Your task to perform on an android device: Open the stopwatch Image 0: 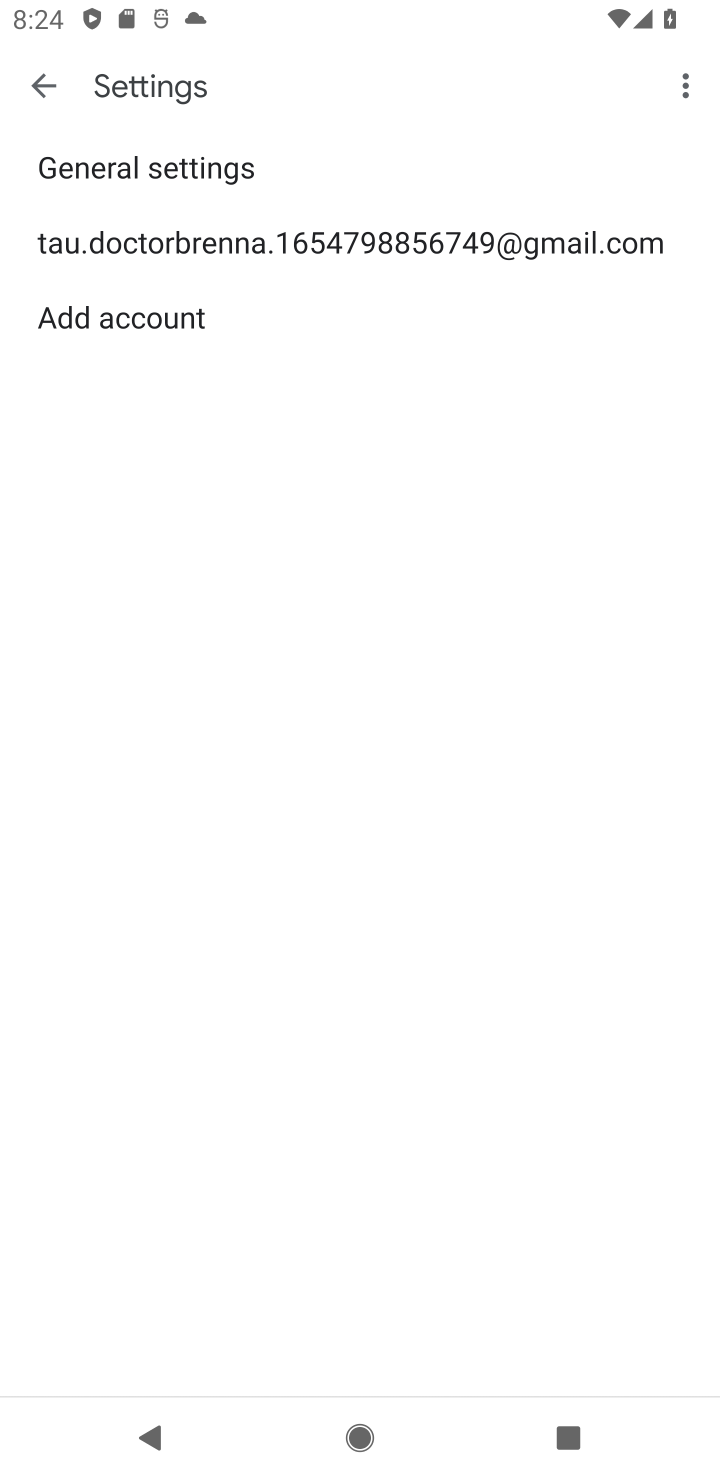
Step 0: press home button
Your task to perform on an android device: Open the stopwatch Image 1: 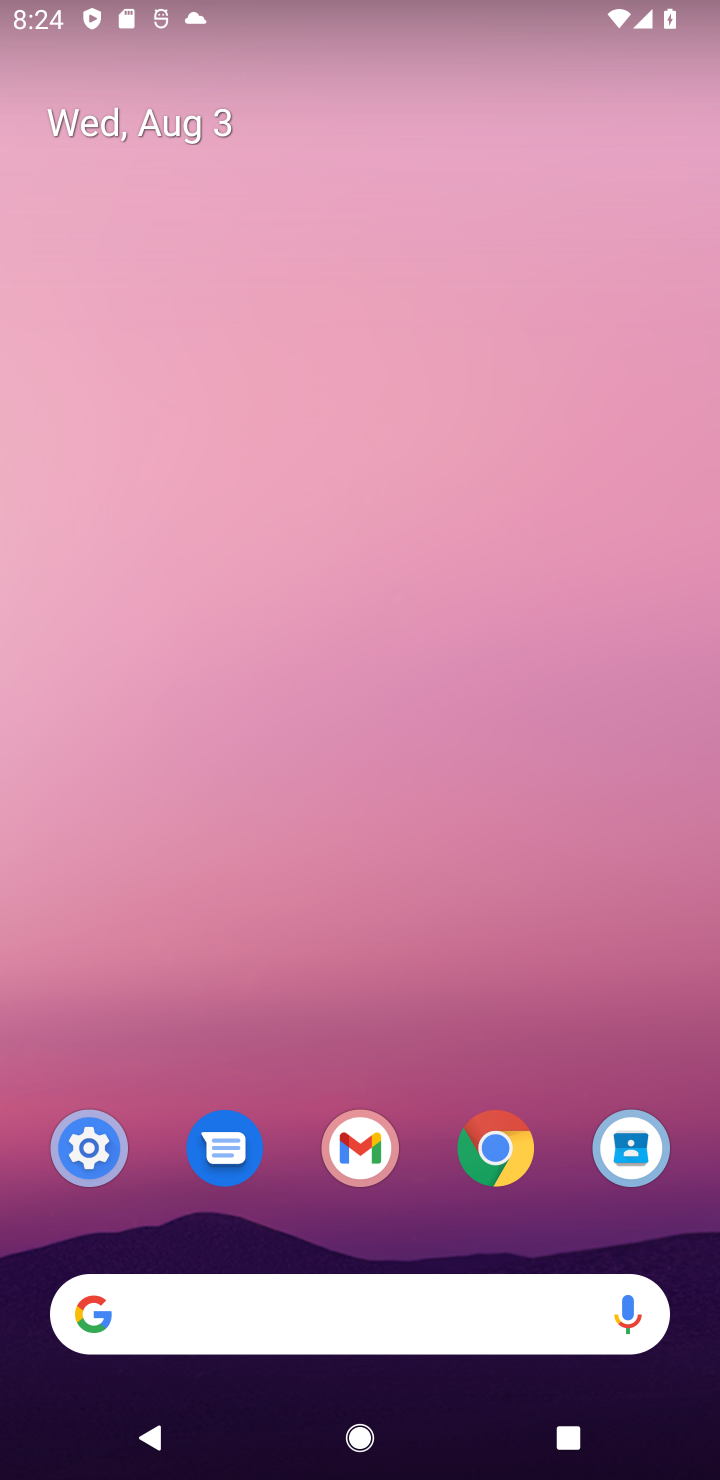
Step 1: drag from (499, 1057) to (402, 137)
Your task to perform on an android device: Open the stopwatch Image 2: 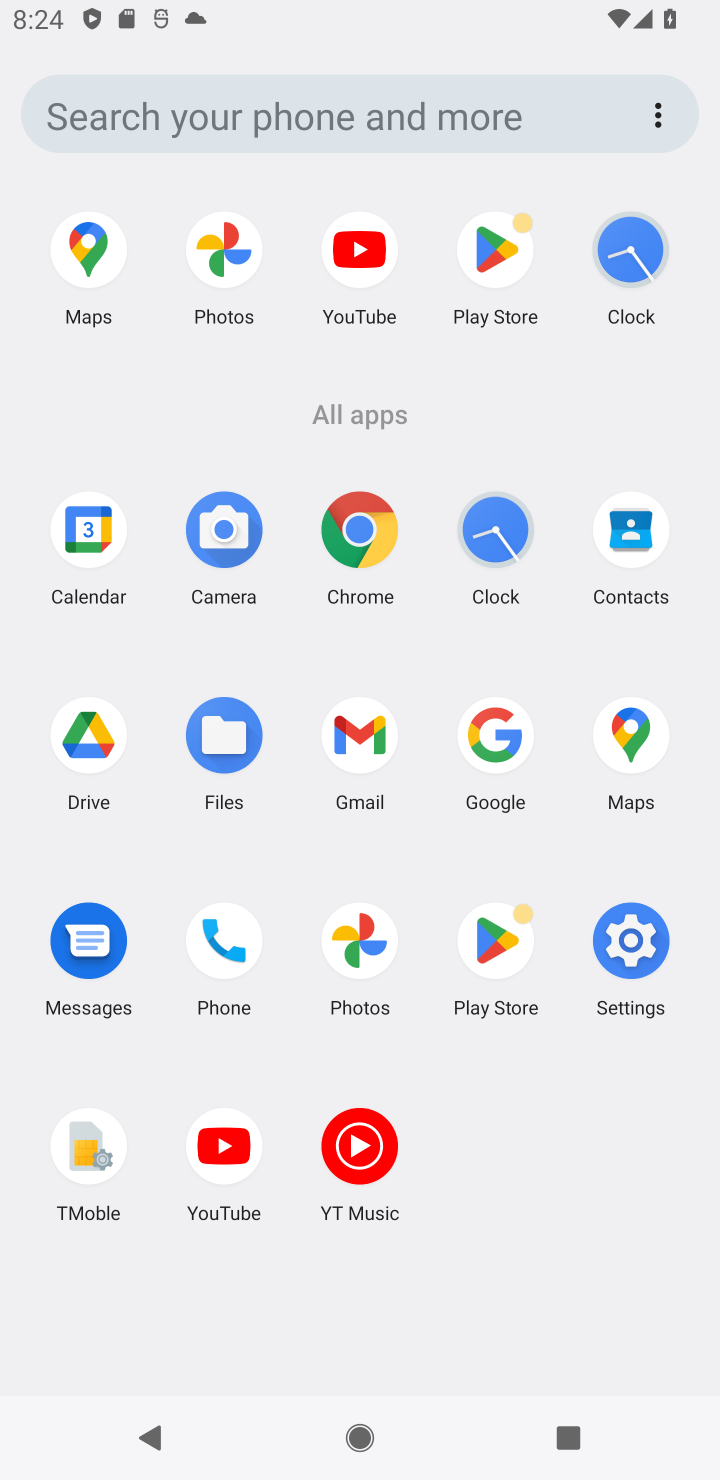
Step 2: click (603, 241)
Your task to perform on an android device: Open the stopwatch Image 3: 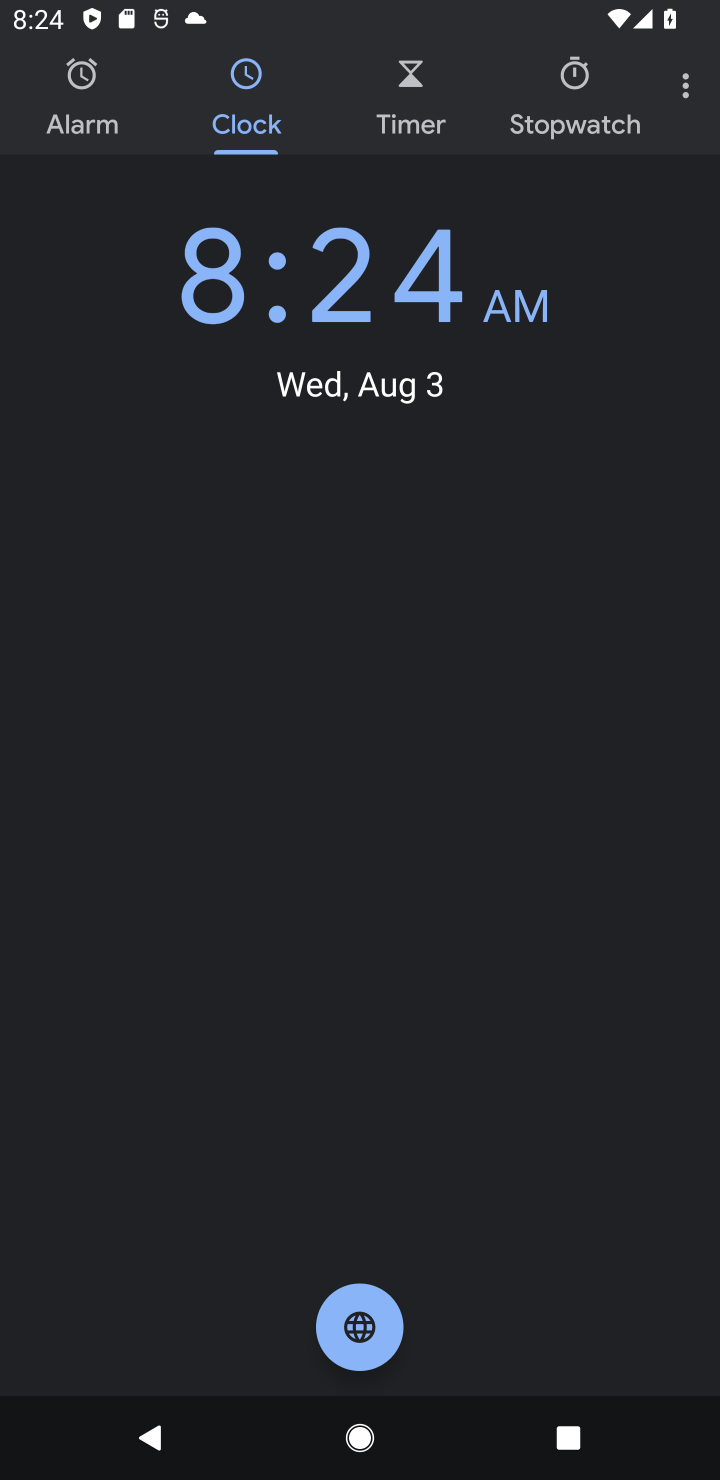
Step 3: click (561, 84)
Your task to perform on an android device: Open the stopwatch Image 4: 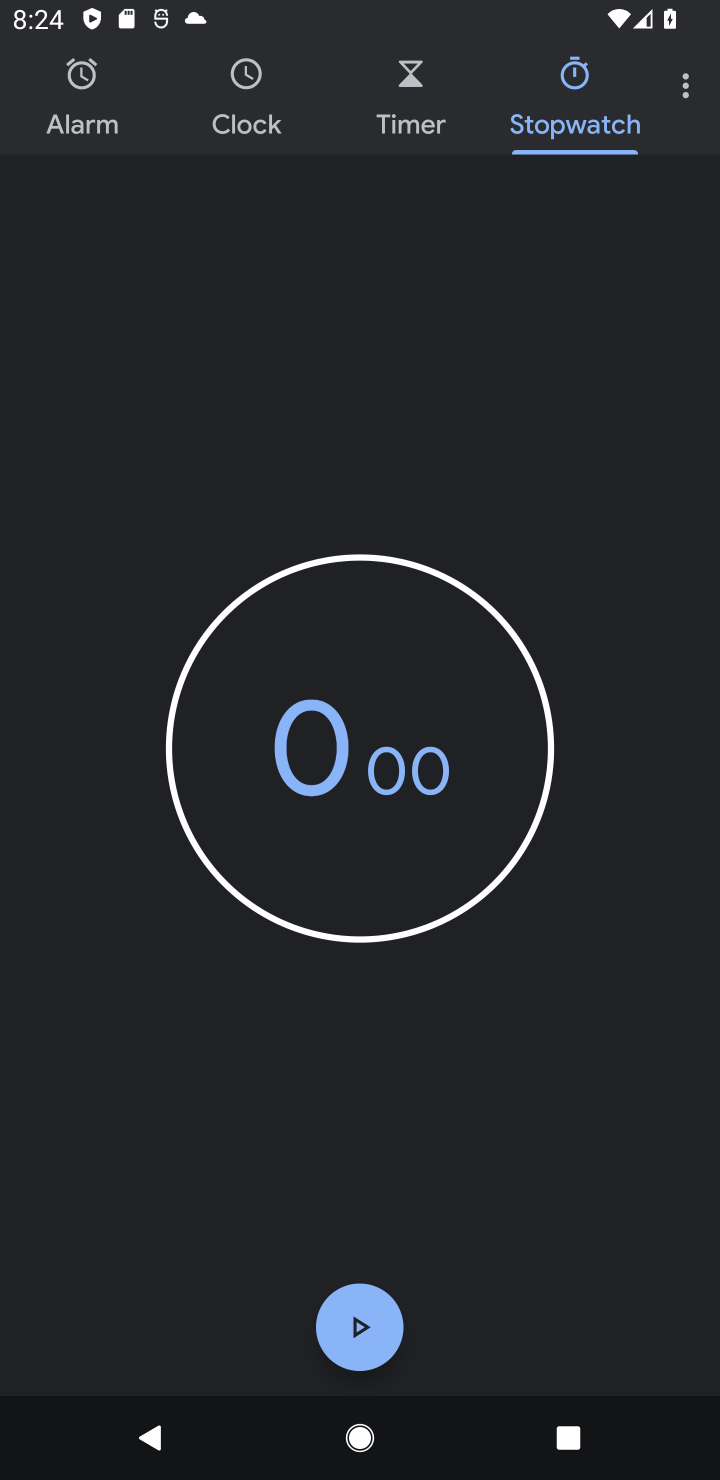
Step 4: task complete